Your task to perform on an android device: turn on sleep mode Image 0: 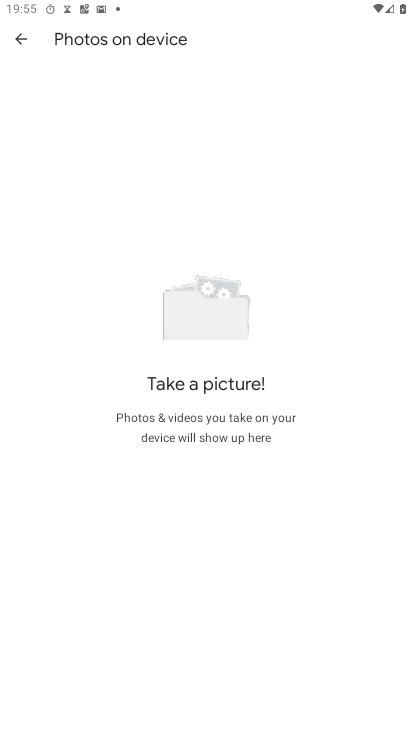
Step 0: press home button
Your task to perform on an android device: turn on sleep mode Image 1: 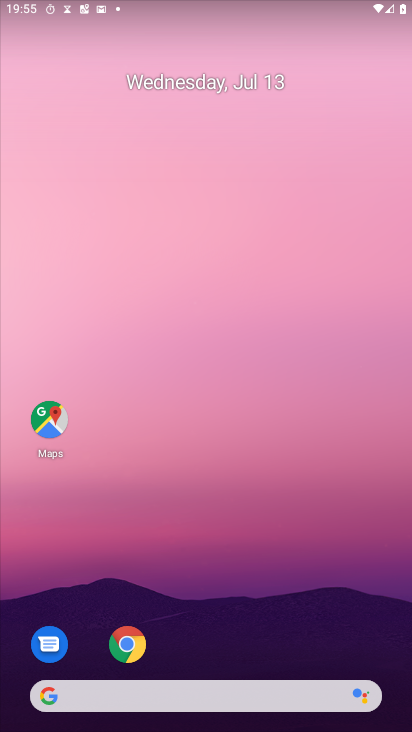
Step 1: drag from (228, 609) to (230, 9)
Your task to perform on an android device: turn on sleep mode Image 2: 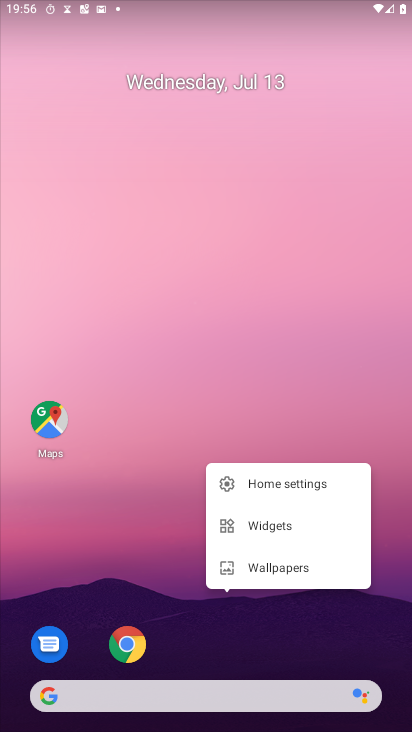
Step 2: click (170, 374)
Your task to perform on an android device: turn on sleep mode Image 3: 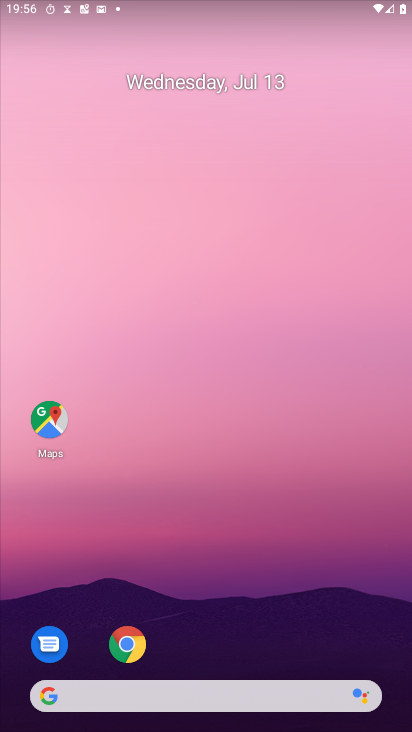
Step 3: drag from (269, 652) to (318, 354)
Your task to perform on an android device: turn on sleep mode Image 4: 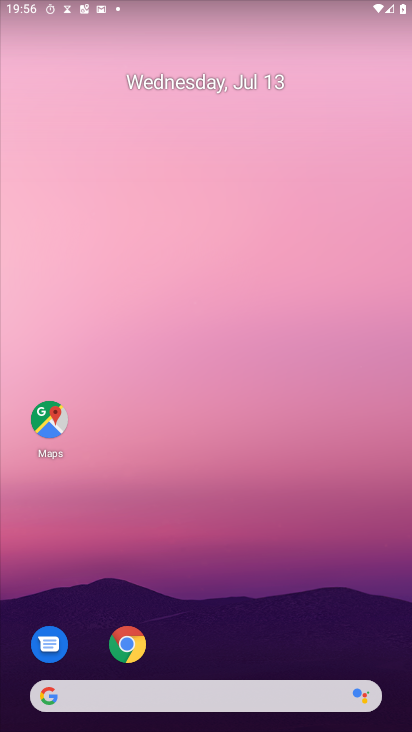
Step 4: drag from (205, 675) to (210, 45)
Your task to perform on an android device: turn on sleep mode Image 5: 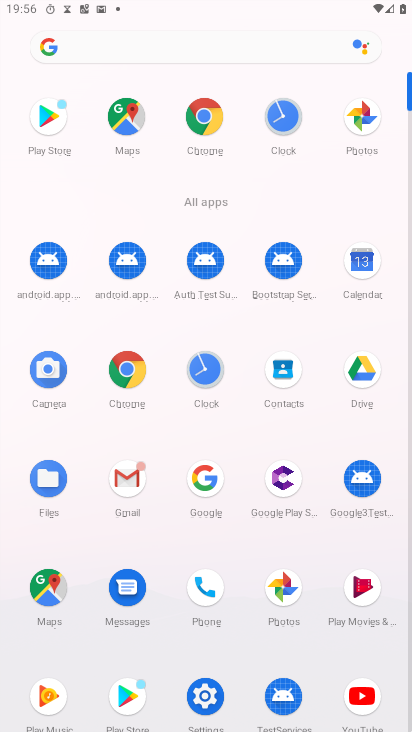
Step 5: click (211, 689)
Your task to perform on an android device: turn on sleep mode Image 6: 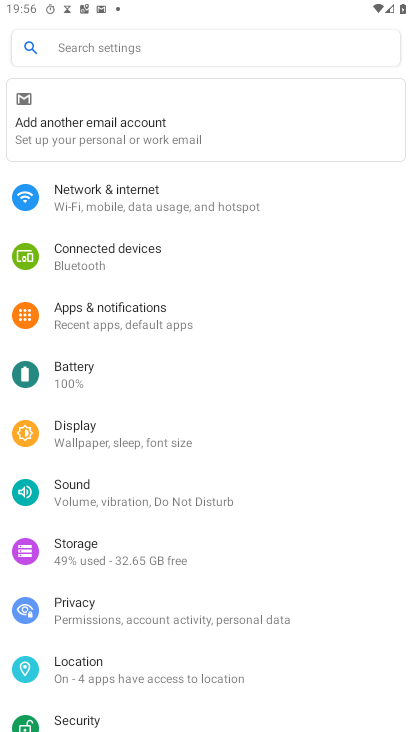
Step 6: click (164, 436)
Your task to perform on an android device: turn on sleep mode Image 7: 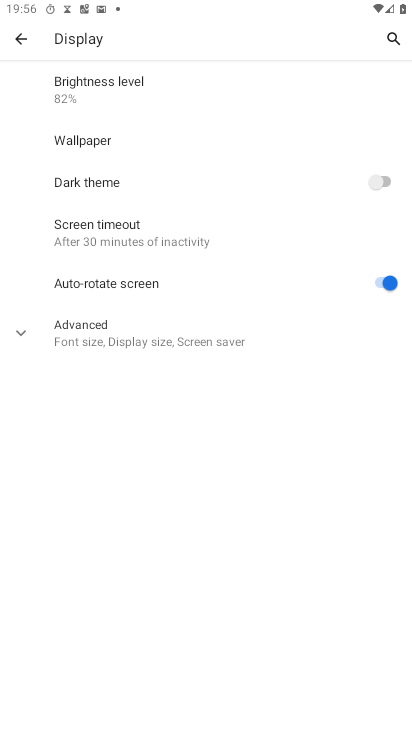
Step 7: click (191, 324)
Your task to perform on an android device: turn on sleep mode Image 8: 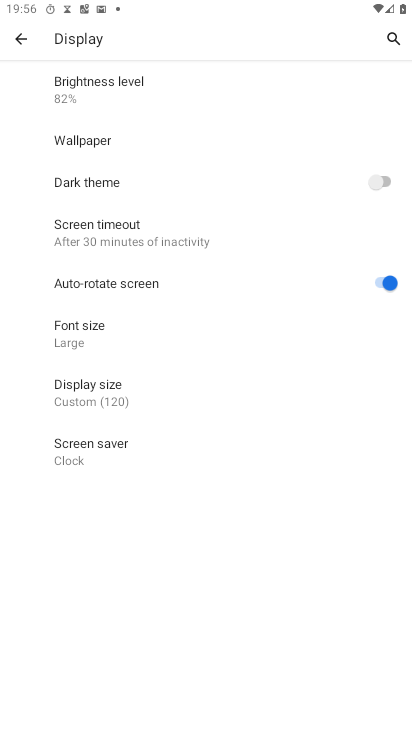
Step 8: task complete